Your task to perform on an android device: Toggle the flashlight Image 0: 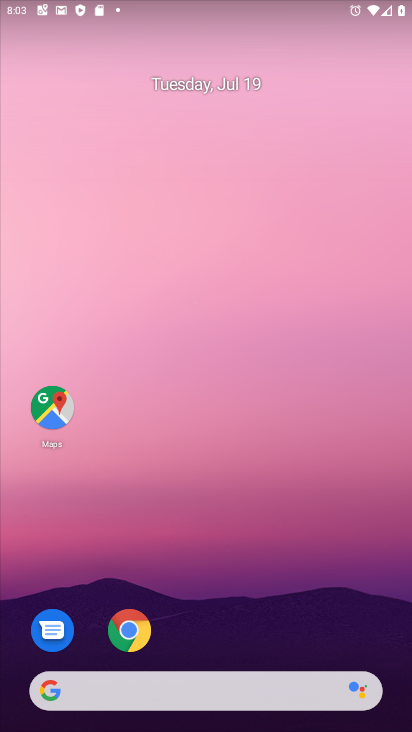
Step 0: drag from (197, 601) to (212, 155)
Your task to perform on an android device: Toggle the flashlight Image 1: 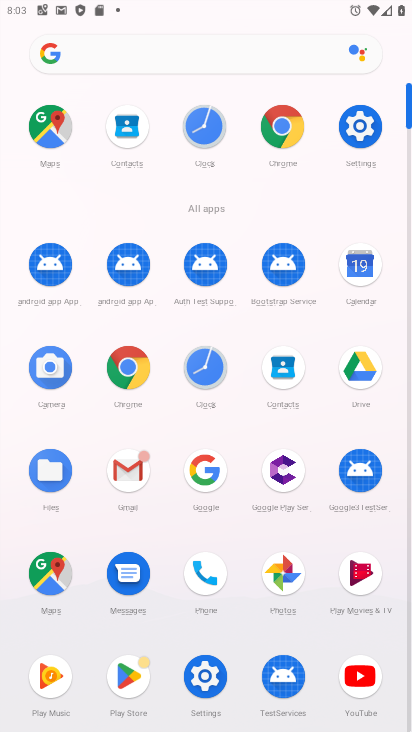
Step 1: click (350, 134)
Your task to perform on an android device: Toggle the flashlight Image 2: 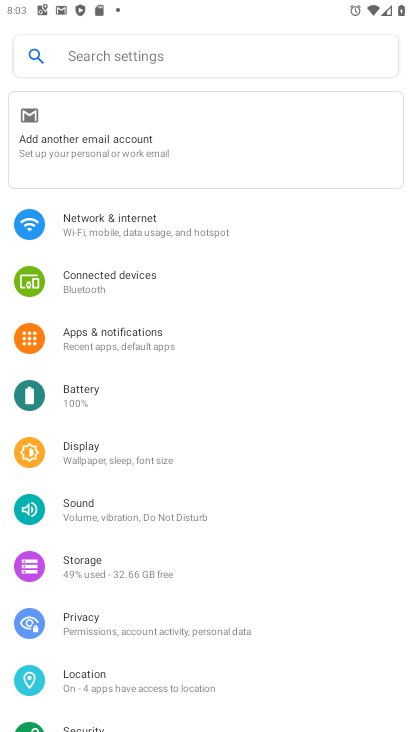
Step 2: task complete